Your task to perform on an android device: turn off notifications settings in the gmail app Image 0: 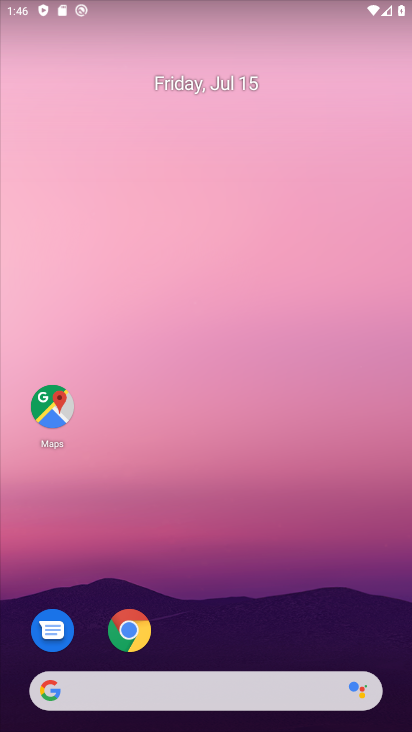
Step 0: drag from (336, 626) to (353, 198)
Your task to perform on an android device: turn off notifications settings in the gmail app Image 1: 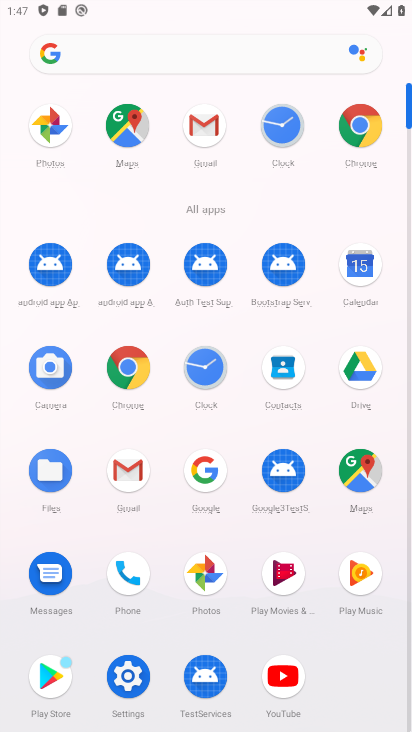
Step 1: click (134, 466)
Your task to perform on an android device: turn off notifications settings in the gmail app Image 2: 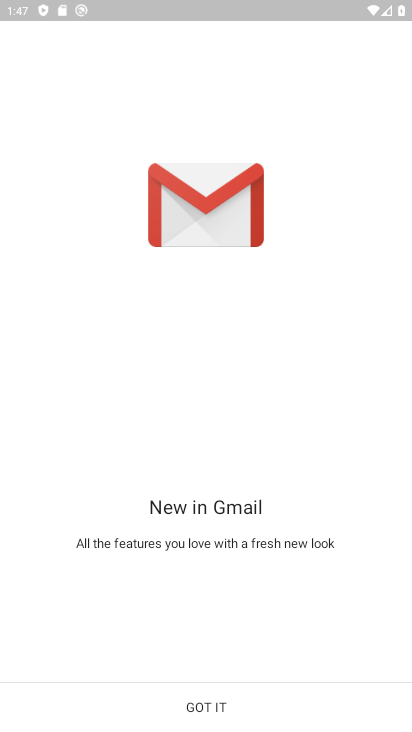
Step 2: click (202, 710)
Your task to perform on an android device: turn off notifications settings in the gmail app Image 3: 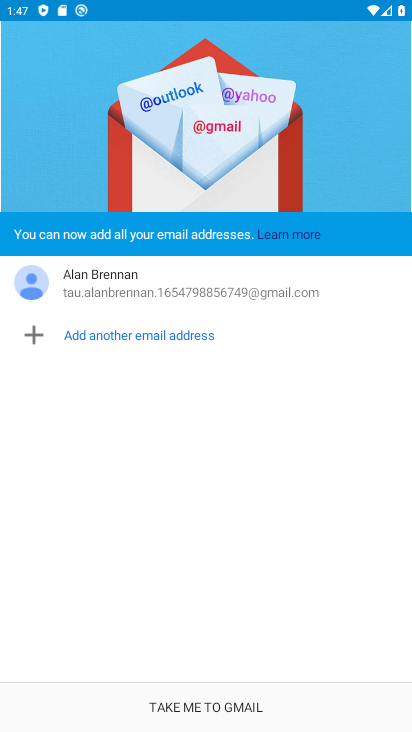
Step 3: click (202, 710)
Your task to perform on an android device: turn off notifications settings in the gmail app Image 4: 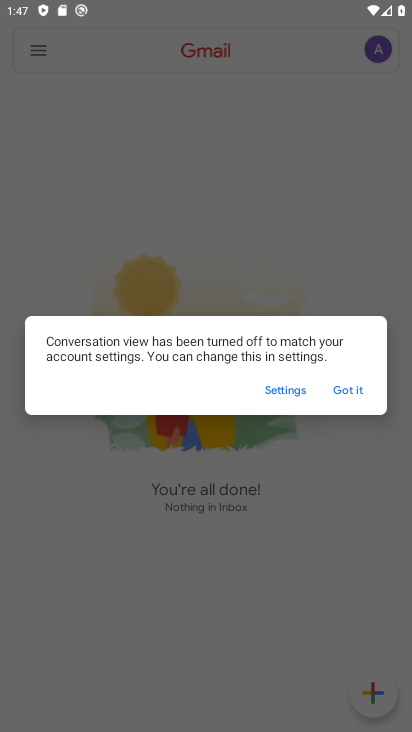
Step 4: click (339, 391)
Your task to perform on an android device: turn off notifications settings in the gmail app Image 5: 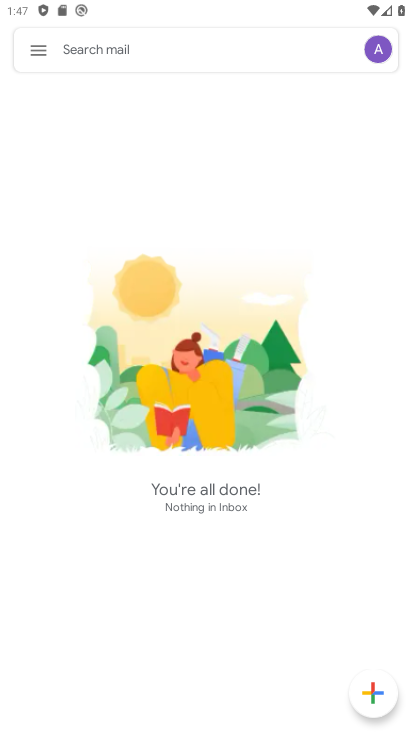
Step 5: click (39, 52)
Your task to perform on an android device: turn off notifications settings in the gmail app Image 6: 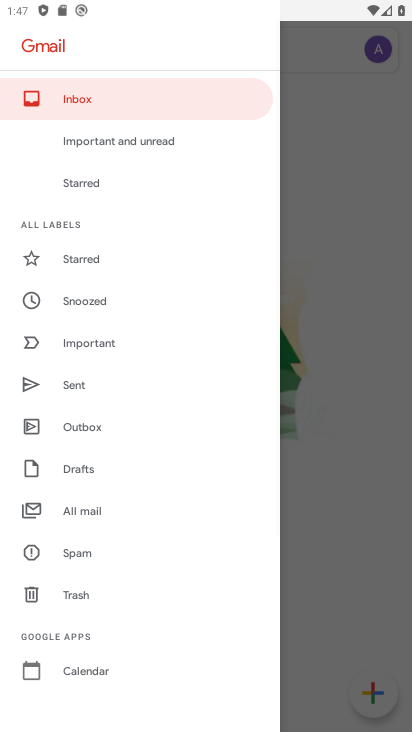
Step 6: drag from (224, 418) to (225, 369)
Your task to perform on an android device: turn off notifications settings in the gmail app Image 7: 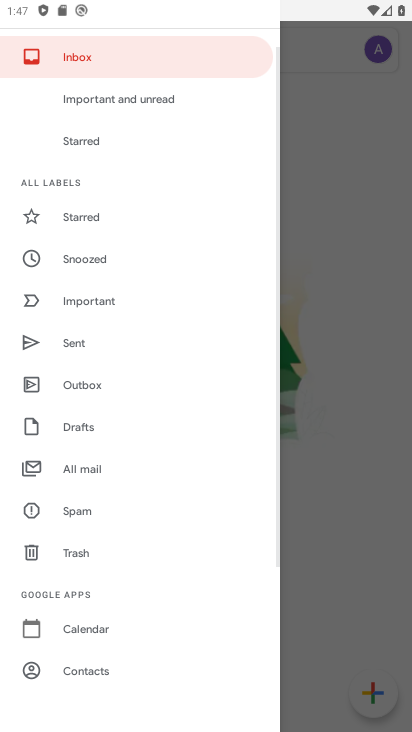
Step 7: drag from (224, 475) to (220, 366)
Your task to perform on an android device: turn off notifications settings in the gmail app Image 8: 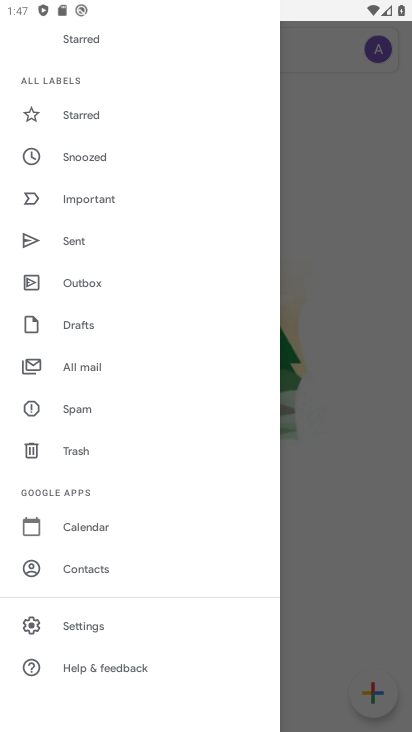
Step 8: drag from (173, 463) to (177, 348)
Your task to perform on an android device: turn off notifications settings in the gmail app Image 9: 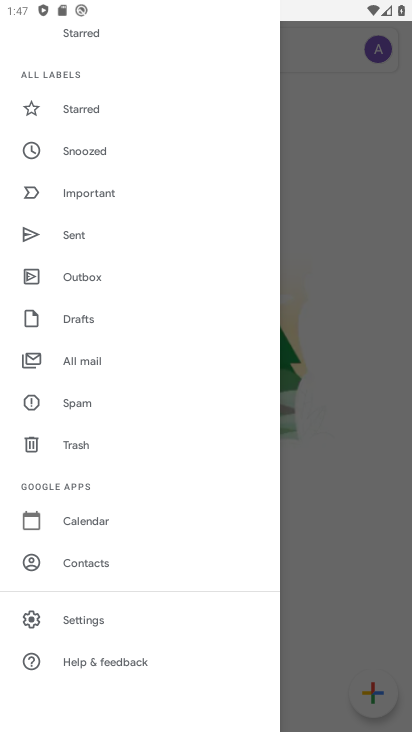
Step 9: click (123, 629)
Your task to perform on an android device: turn off notifications settings in the gmail app Image 10: 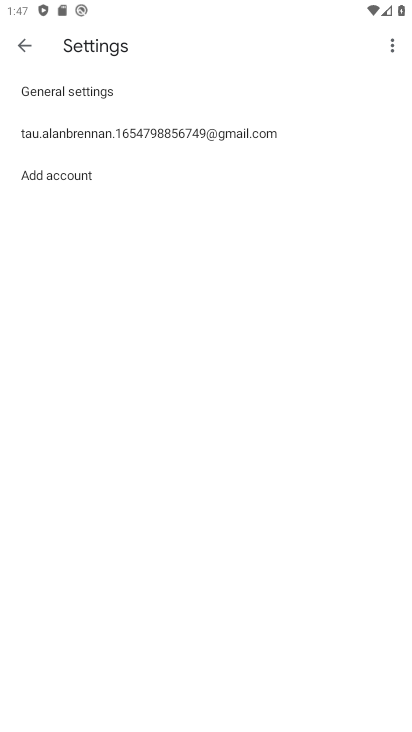
Step 10: click (270, 145)
Your task to perform on an android device: turn off notifications settings in the gmail app Image 11: 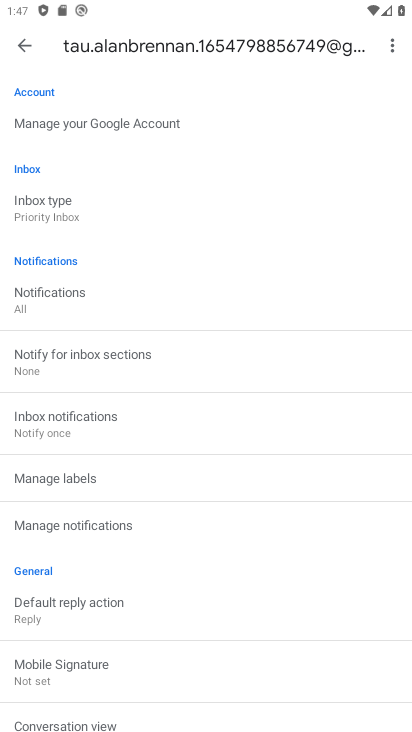
Step 11: drag from (297, 359) to (310, 290)
Your task to perform on an android device: turn off notifications settings in the gmail app Image 12: 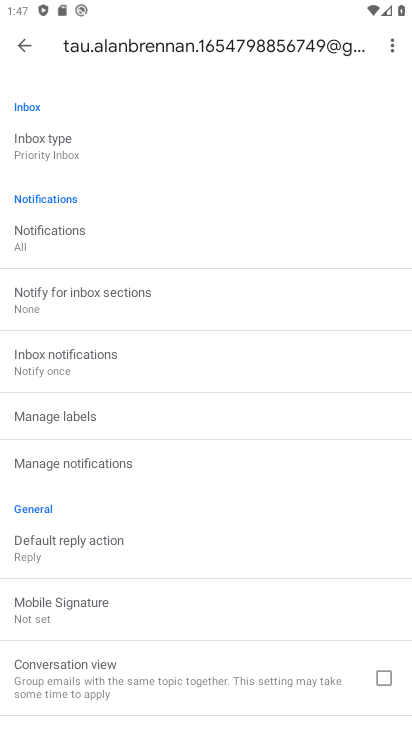
Step 12: drag from (320, 415) to (321, 304)
Your task to perform on an android device: turn off notifications settings in the gmail app Image 13: 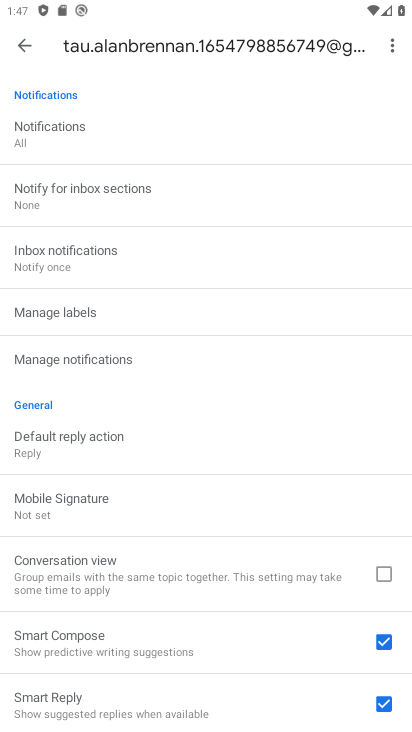
Step 13: drag from (304, 419) to (304, 266)
Your task to perform on an android device: turn off notifications settings in the gmail app Image 14: 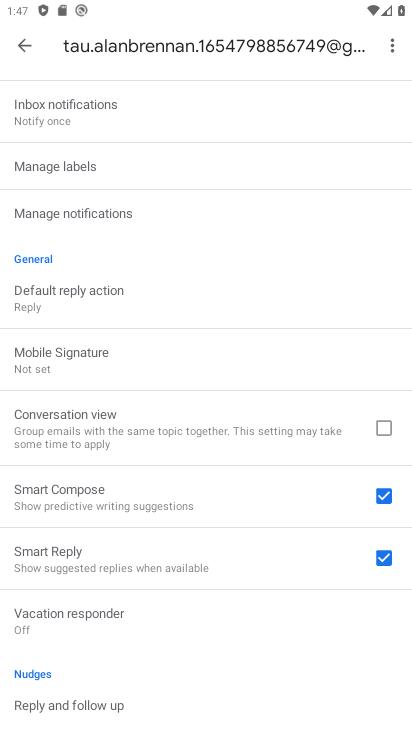
Step 14: click (240, 224)
Your task to perform on an android device: turn off notifications settings in the gmail app Image 15: 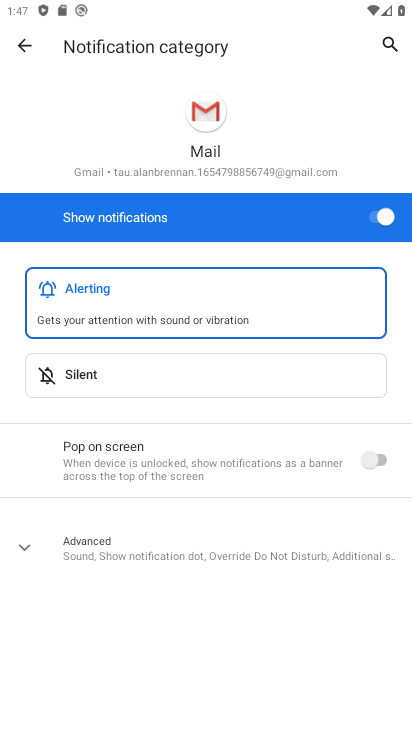
Step 15: click (390, 214)
Your task to perform on an android device: turn off notifications settings in the gmail app Image 16: 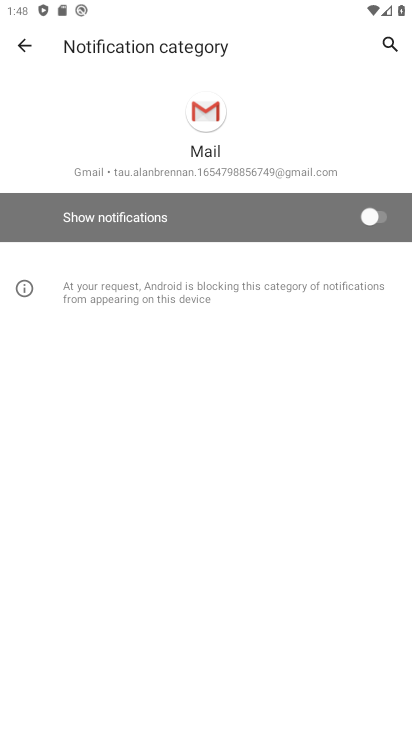
Step 16: task complete